Your task to perform on an android device: change timer sound Image 0: 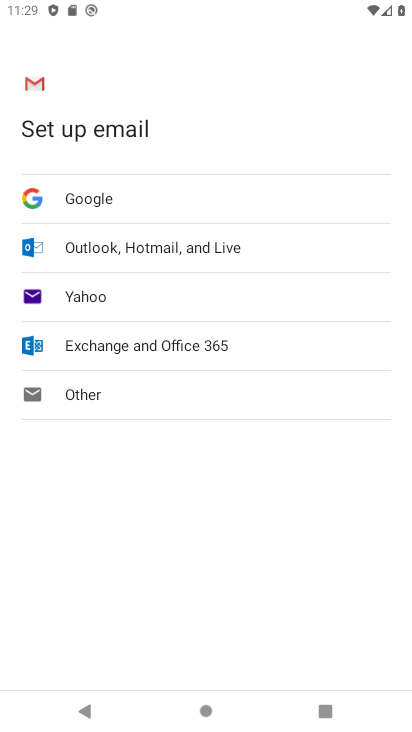
Step 0: press home button
Your task to perform on an android device: change timer sound Image 1: 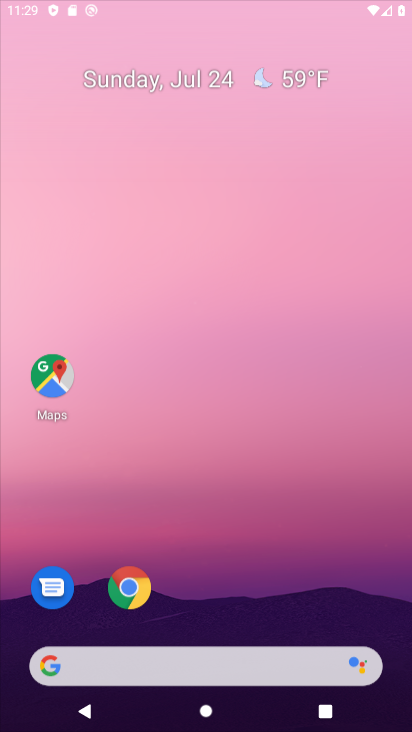
Step 1: drag from (390, 661) to (165, 1)
Your task to perform on an android device: change timer sound Image 2: 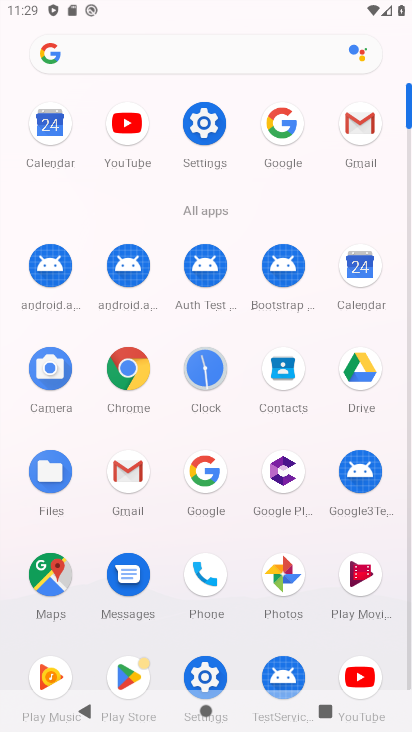
Step 2: click (208, 384)
Your task to perform on an android device: change timer sound Image 3: 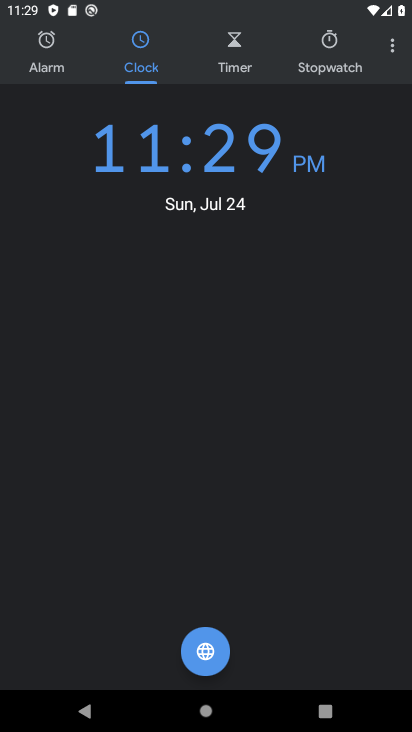
Step 3: click (392, 48)
Your task to perform on an android device: change timer sound Image 4: 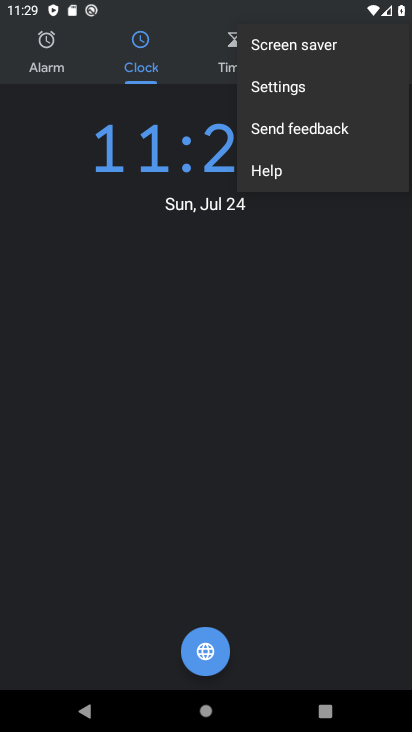
Step 4: click (261, 81)
Your task to perform on an android device: change timer sound Image 5: 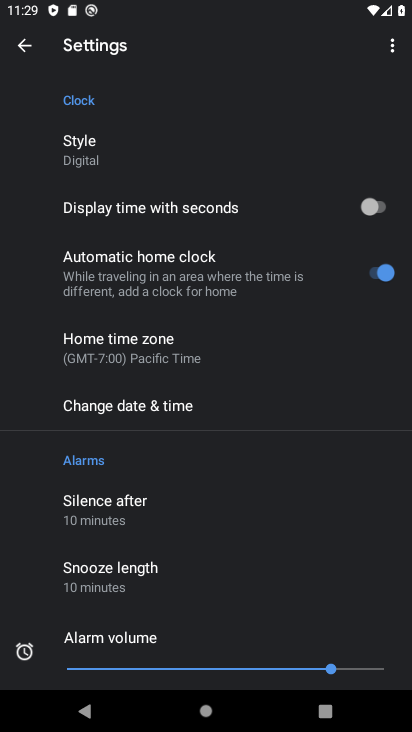
Step 5: drag from (146, 601) to (161, 195)
Your task to perform on an android device: change timer sound Image 6: 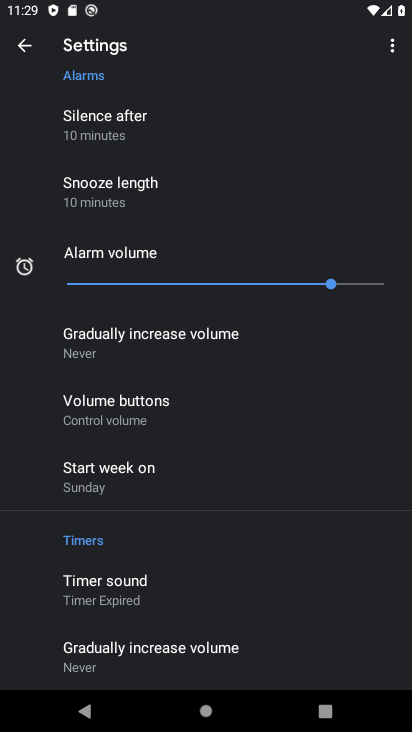
Step 6: click (127, 584)
Your task to perform on an android device: change timer sound Image 7: 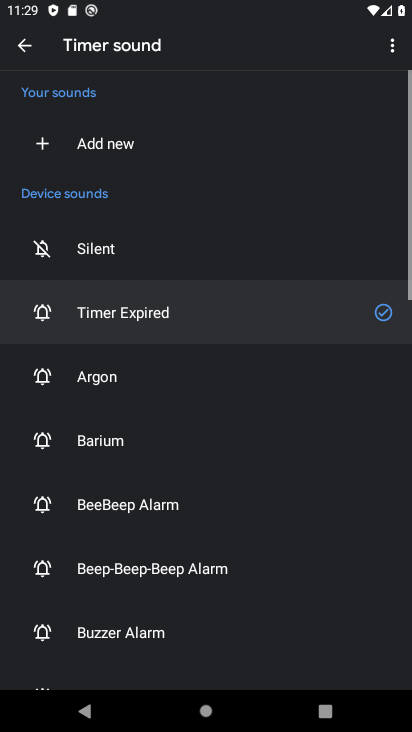
Step 7: click (112, 445)
Your task to perform on an android device: change timer sound Image 8: 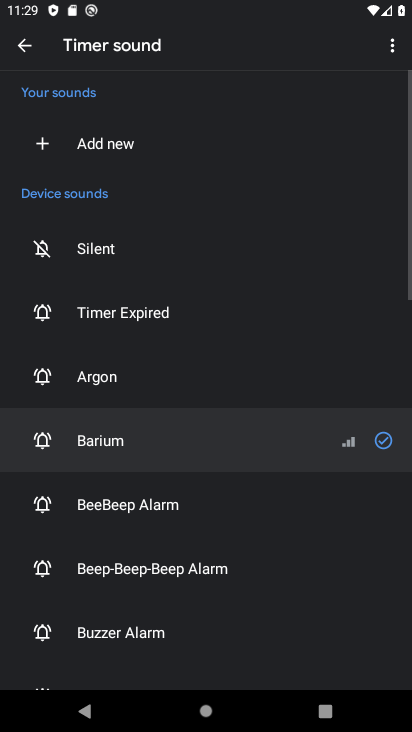
Step 8: task complete